Your task to perform on an android device: open sync settings in chrome Image 0: 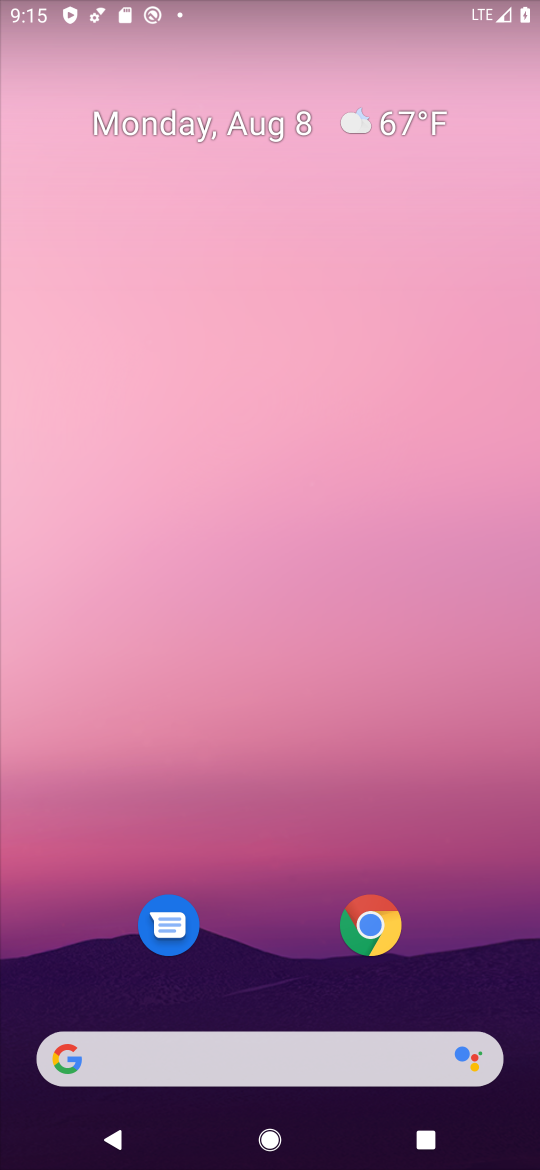
Step 0: drag from (270, 848) to (347, 132)
Your task to perform on an android device: open sync settings in chrome Image 1: 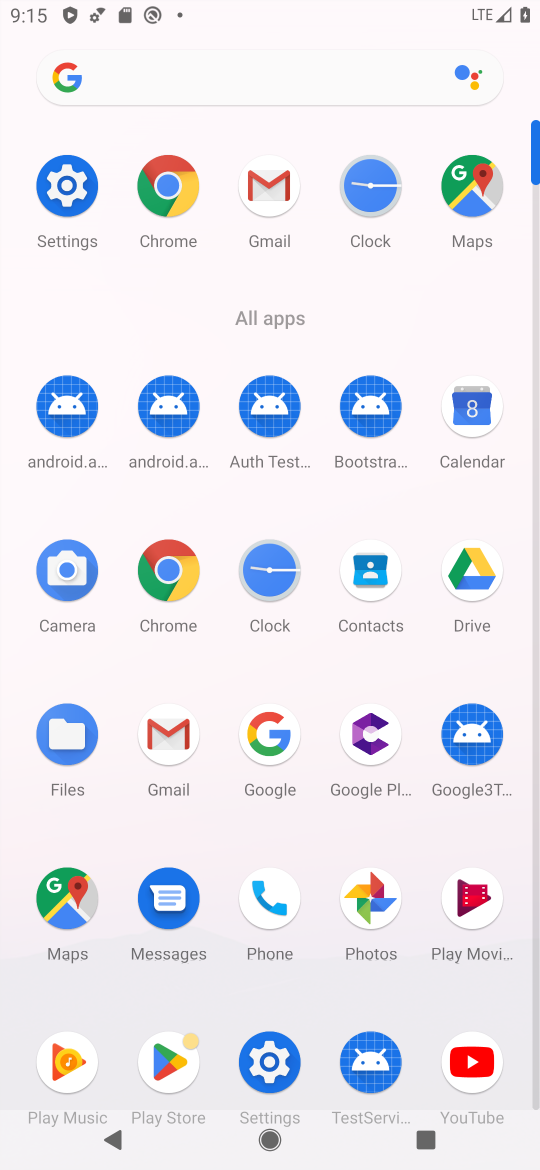
Step 1: click (173, 566)
Your task to perform on an android device: open sync settings in chrome Image 2: 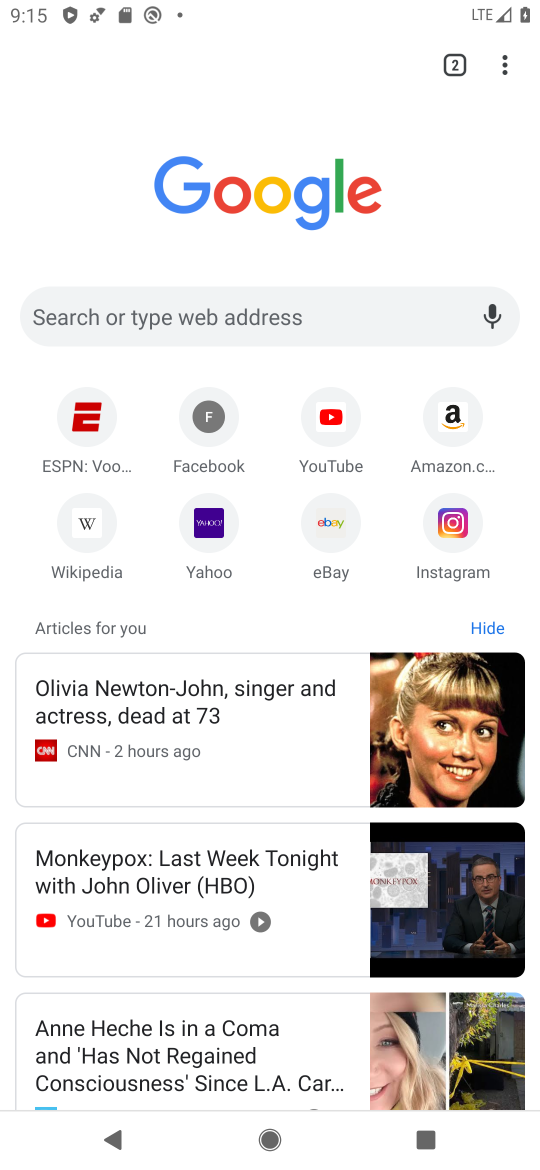
Step 2: drag from (510, 65) to (265, 627)
Your task to perform on an android device: open sync settings in chrome Image 3: 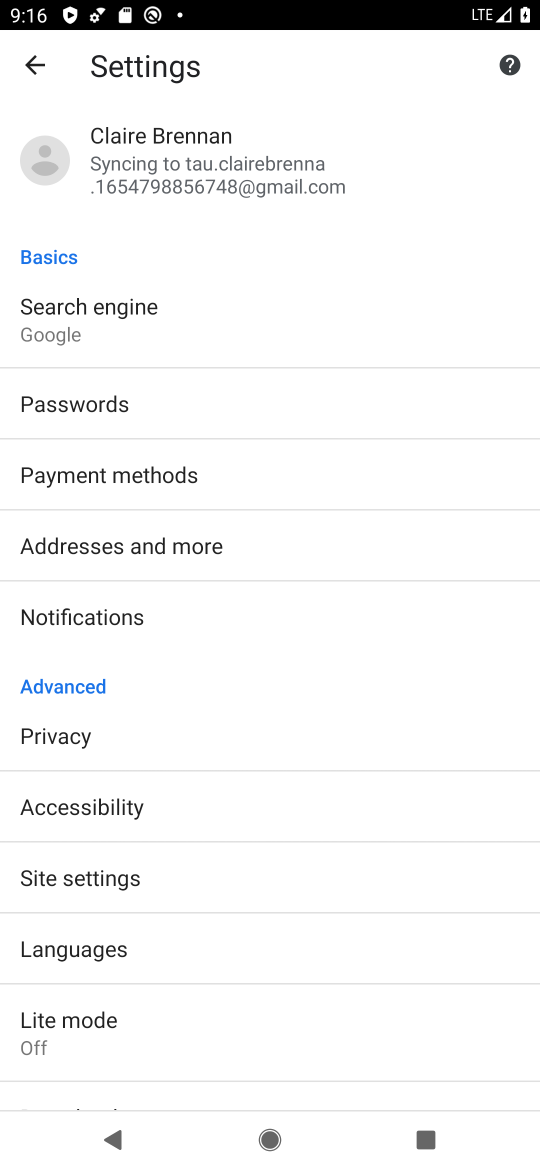
Step 3: click (164, 182)
Your task to perform on an android device: open sync settings in chrome Image 4: 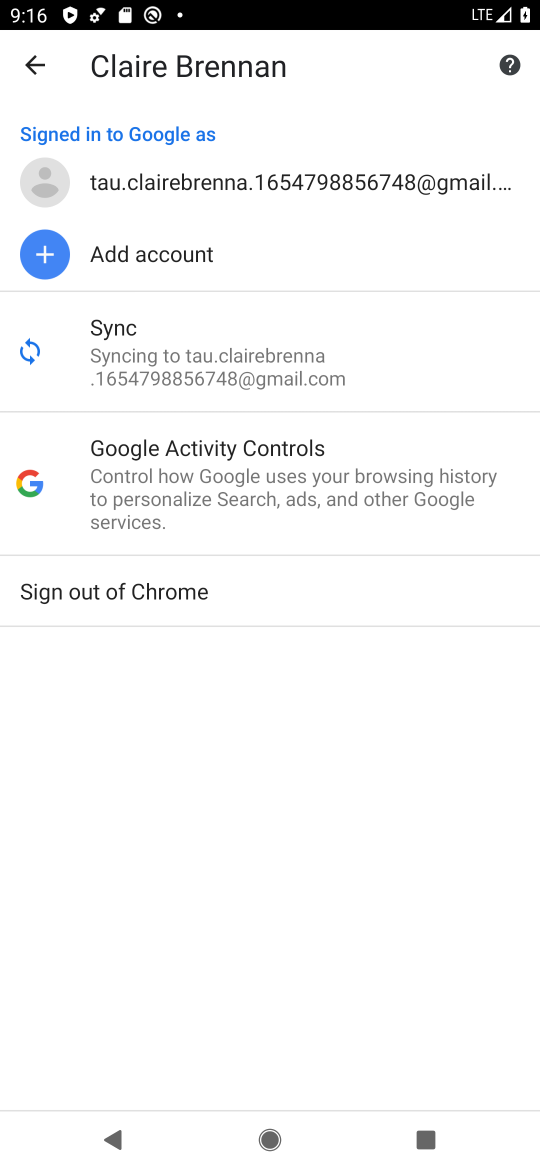
Step 4: click (208, 346)
Your task to perform on an android device: open sync settings in chrome Image 5: 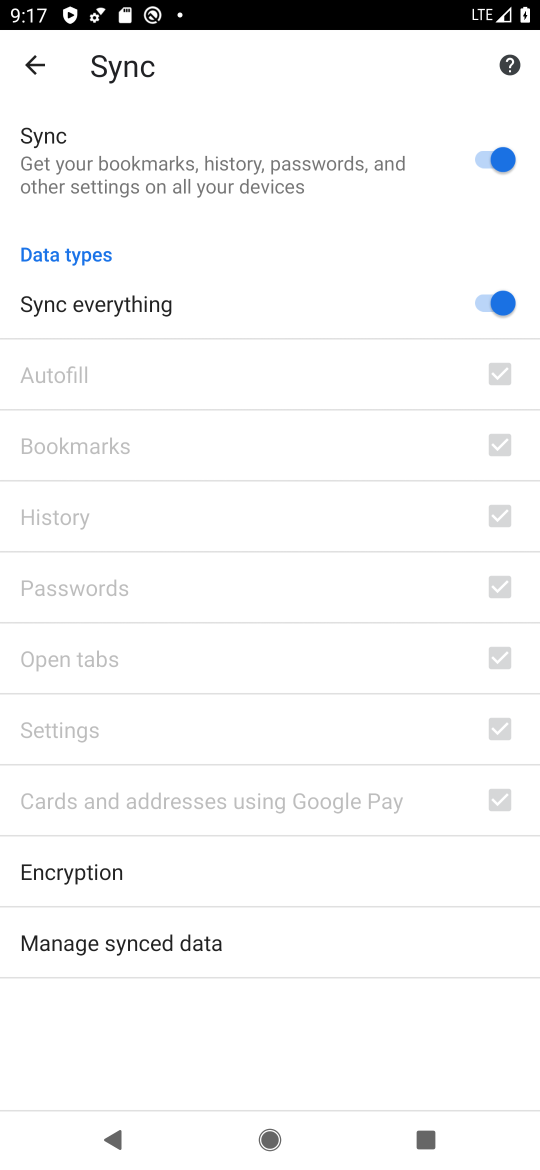
Step 5: task complete